Your task to perform on an android device: clear all cookies in the chrome app Image 0: 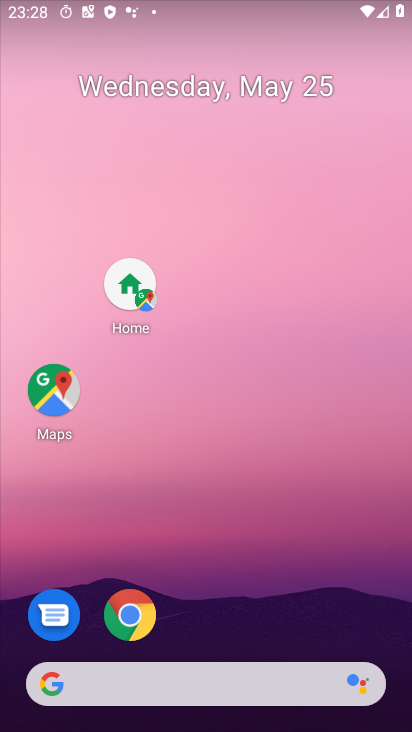
Step 0: press home button
Your task to perform on an android device: clear all cookies in the chrome app Image 1: 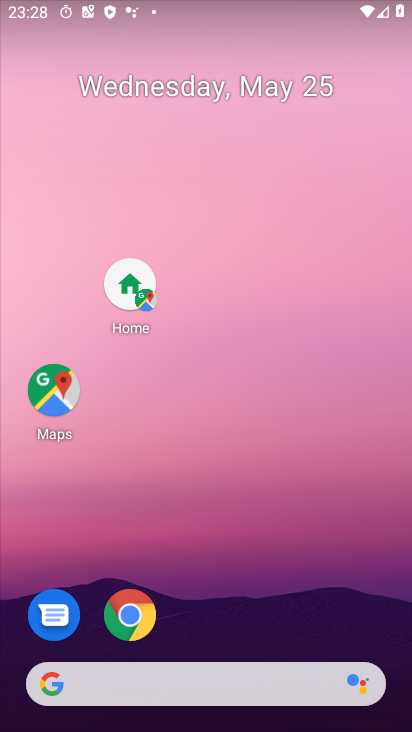
Step 1: click (135, 617)
Your task to perform on an android device: clear all cookies in the chrome app Image 2: 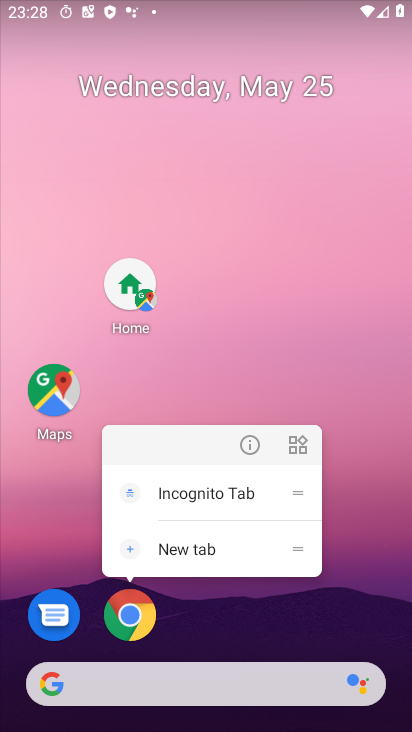
Step 2: click (135, 617)
Your task to perform on an android device: clear all cookies in the chrome app Image 3: 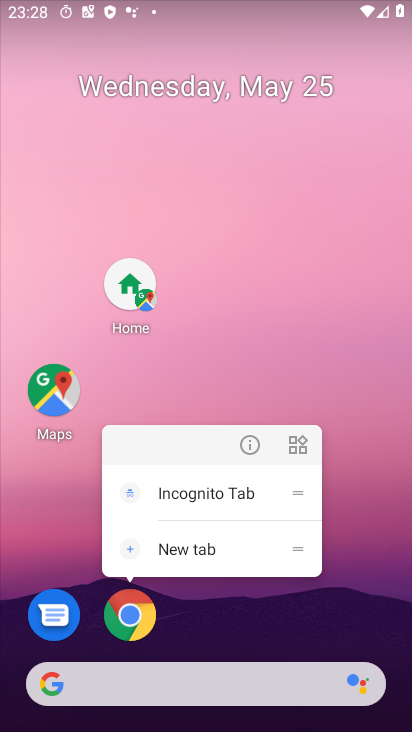
Step 3: click (131, 616)
Your task to perform on an android device: clear all cookies in the chrome app Image 4: 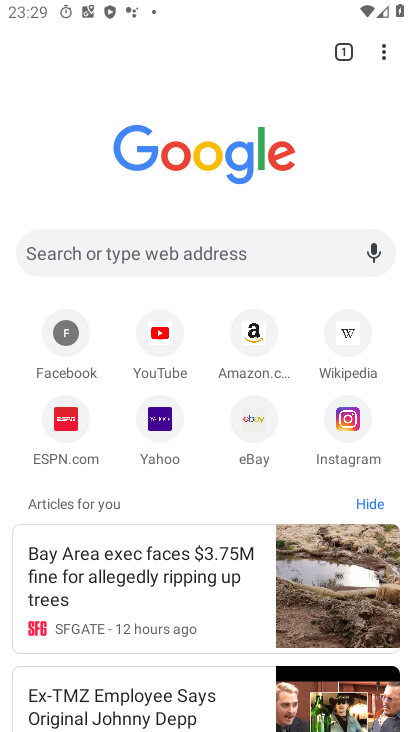
Step 4: drag from (386, 54) to (222, 443)
Your task to perform on an android device: clear all cookies in the chrome app Image 5: 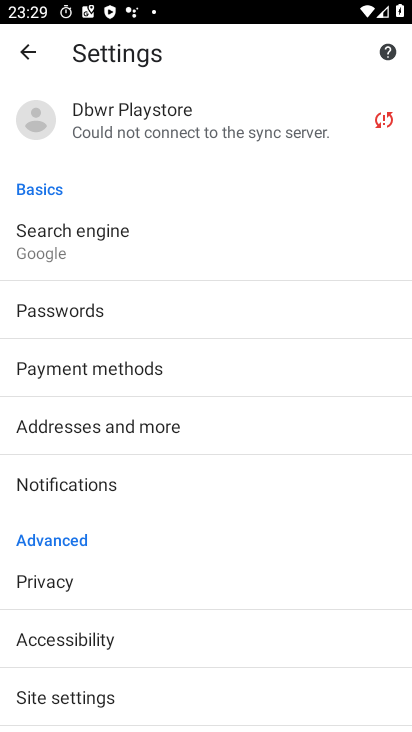
Step 5: click (43, 588)
Your task to perform on an android device: clear all cookies in the chrome app Image 6: 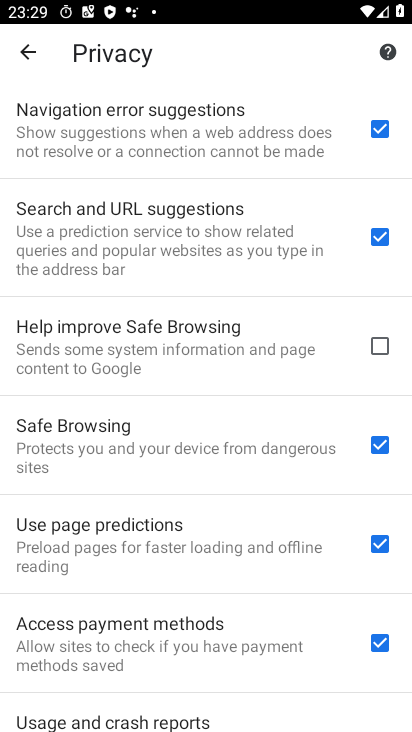
Step 6: drag from (189, 557) to (242, 63)
Your task to perform on an android device: clear all cookies in the chrome app Image 7: 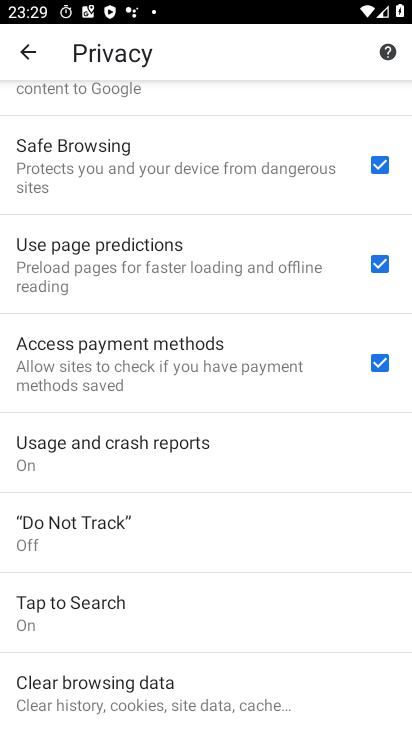
Step 7: click (103, 685)
Your task to perform on an android device: clear all cookies in the chrome app Image 8: 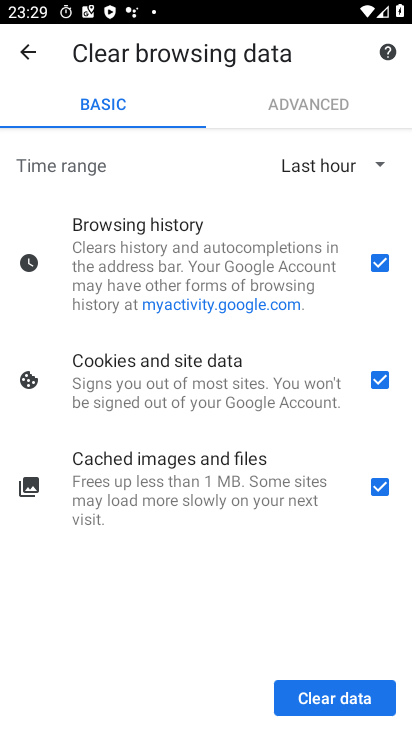
Step 8: click (381, 267)
Your task to perform on an android device: clear all cookies in the chrome app Image 9: 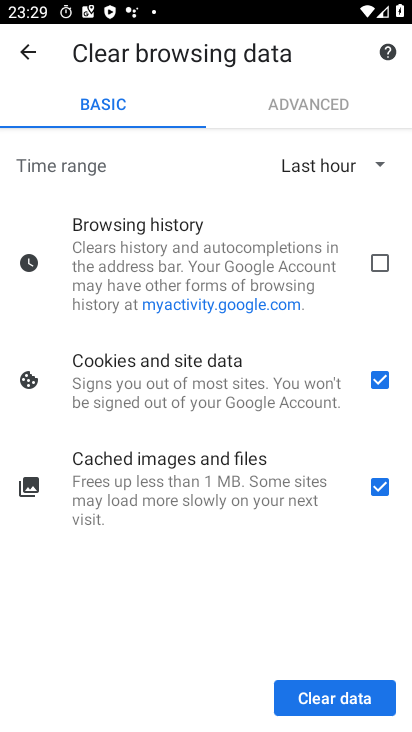
Step 9: click (379, 484)
Your task to perform on an android device: clear all cookies in the chrome app Image 10: 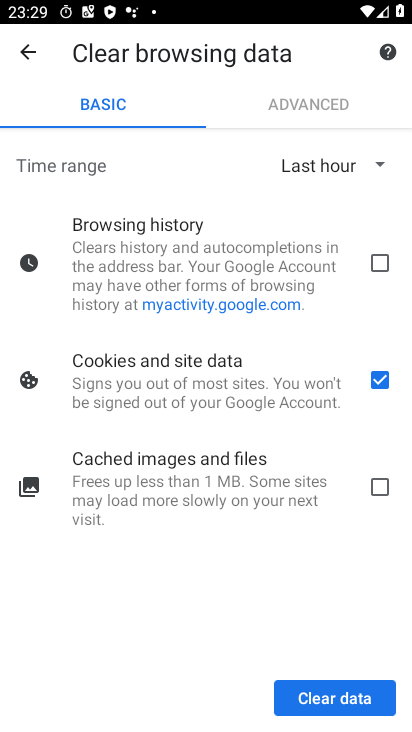
Step 10: click (317, 698)
Your task to perform on an android device: clear all cookies in the chrome app Image 11: 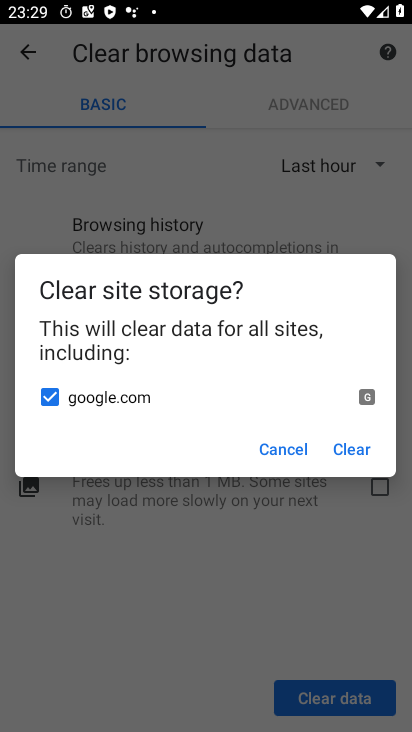
Step 11: click (353, 448)
Your task to perform on an android device: clear all cookies in the chrome app Image 12: 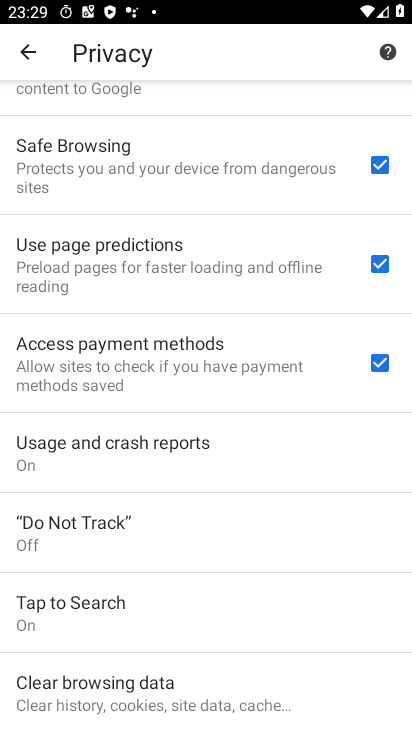
Step 12: task complete